Your task to perform on an android device: Go to privacy settings Image 0: 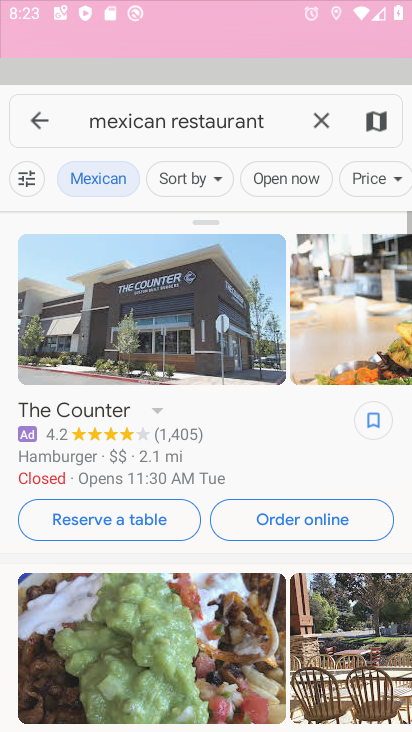
Step 0: drag from (306, 56) to (202, 191)
Your task to perform on an android device: Go to privacy settings Image 1: 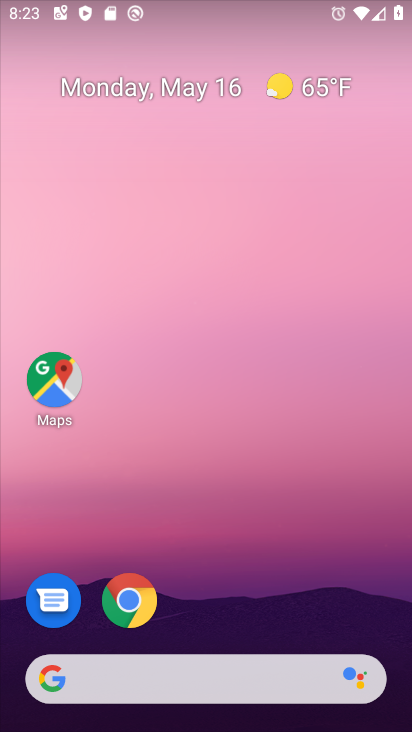
Step 1: drag from (201, 627) to (240, 106)
Your task to perform on an android device: Go to privacy settings Image 2: 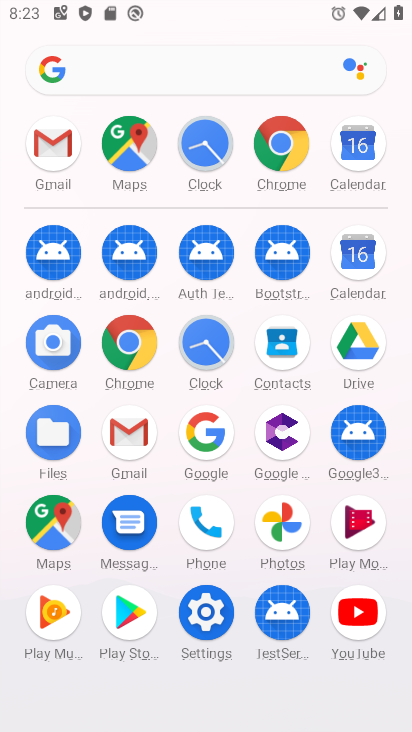
Step 2: click (204, 624)
Your task to perform on an android device: Go to privacy settings Image 3: 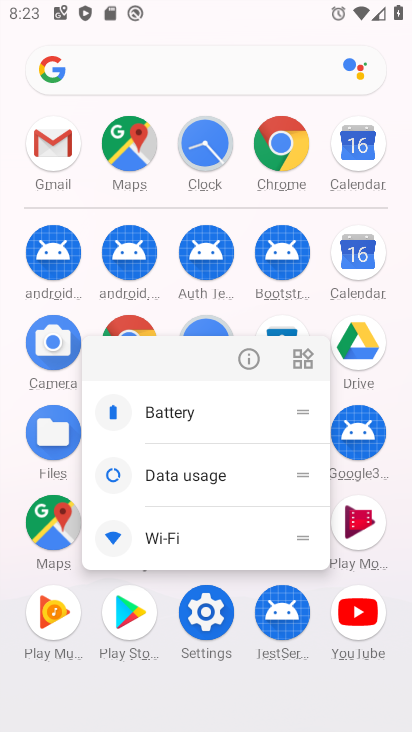
Step 3: click (256, 348)
Your task to perform on an android device: Go to privacy settings Image 4: 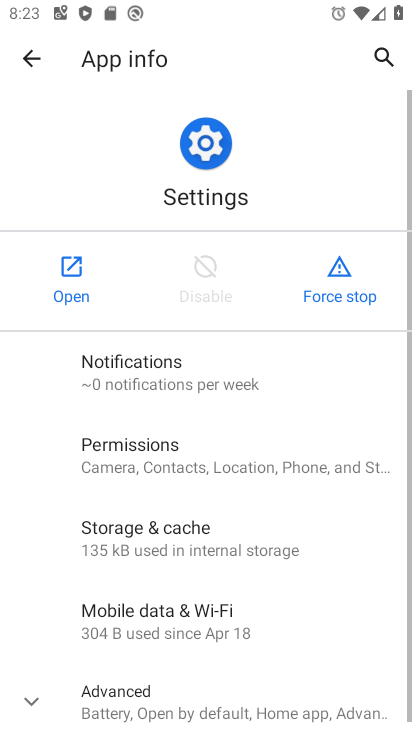
Step 4: click (39, 271)
Your task to perform on an android device: Go to privacy settings Image 5: 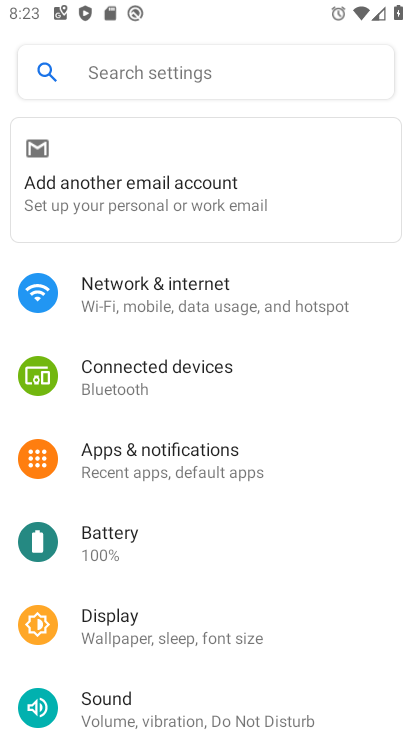
Step 5: drag from (178, 597) to (298, 173)
Your task to perform on an android device: Go to privacy settings Image 6: 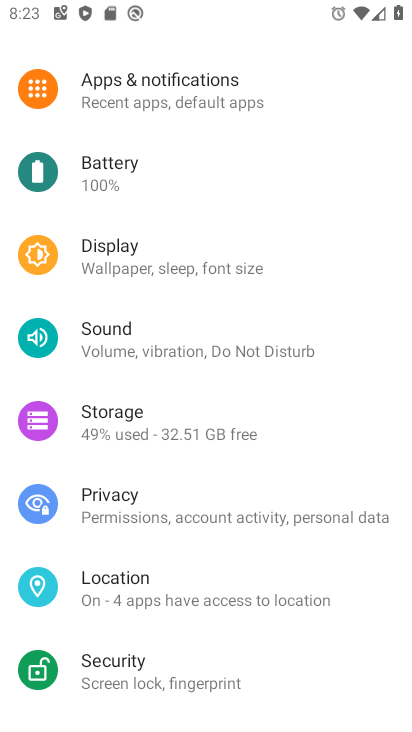
Step 6: drag from (267, 638) to (307, 194)
Your task to perform on an android device: Go to privacy settings Image 7: 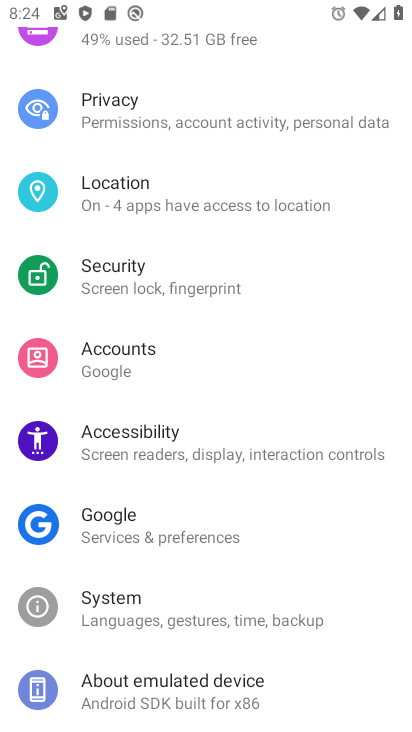
Step 7: click (206, 128)
Your task to perform on an android device: Go to privacy settings Image 8: 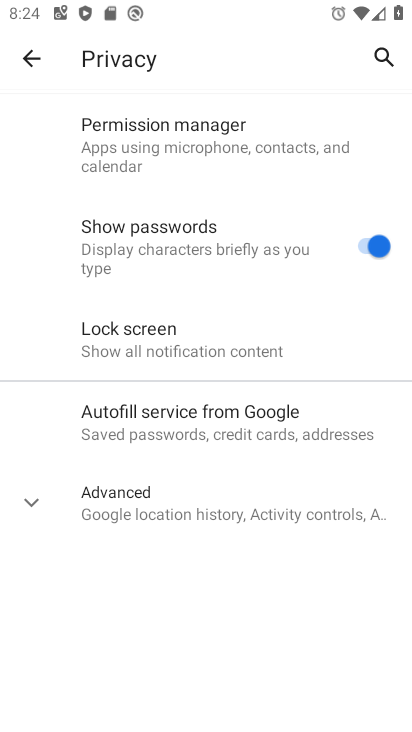
Step 8: task complete